Your task to perform on an android device: Open Youtube and go to the subscriptions tab Image 0: 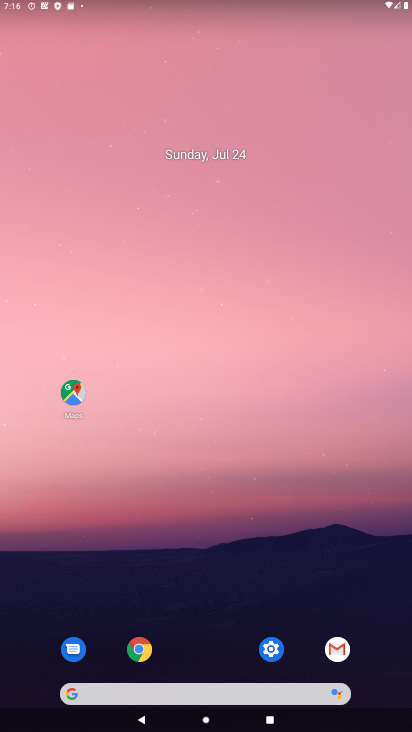
Step 0: drag from (207, 690) to (153, 151)
Your task to perform on an android device: Open Youtube and go to the subscriptions tab Image 1: 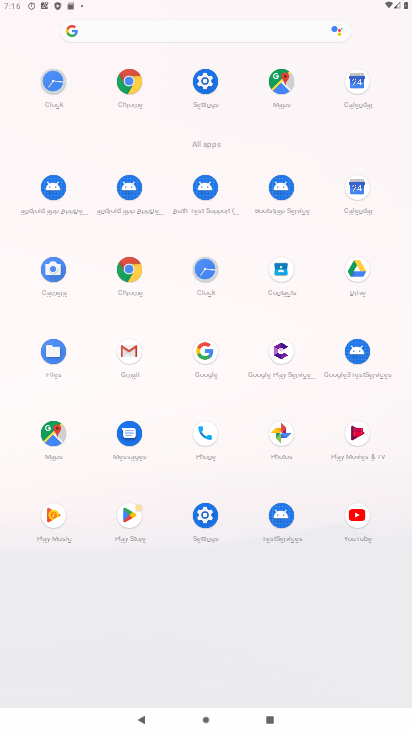
Step 1: click (364, 510)
Your task to perform on an android device: Open Youtube and go to the subscriptions tab Image 2: 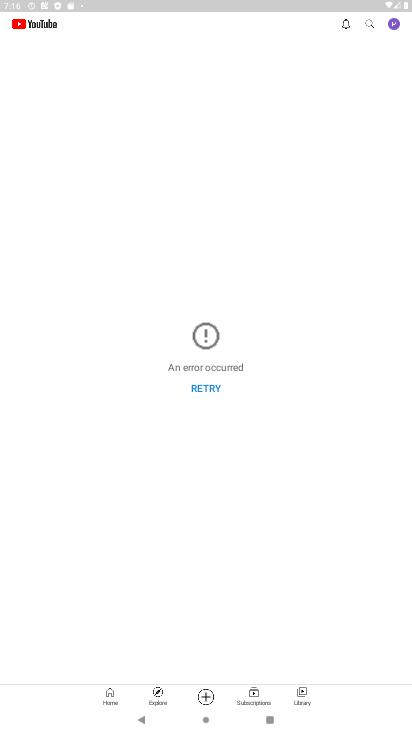
Step 2: click (247, 702)
Your task to perform on an android device: Open Youtube and go to the subscriptions tab Image 3: 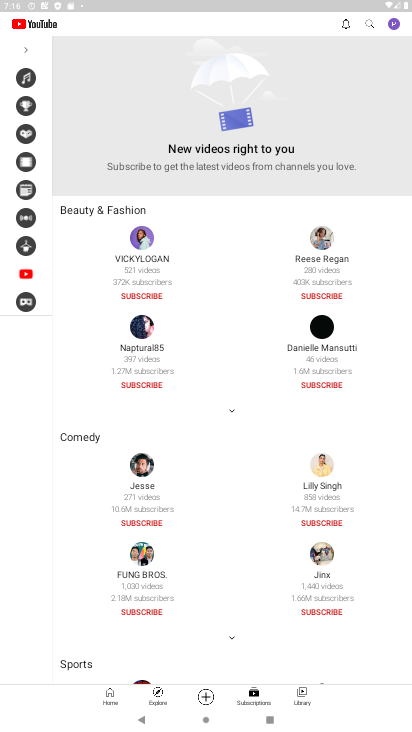
Step 3: task complete